Your task to perform on an android device: move a message to another label in the gmail app Image 0: 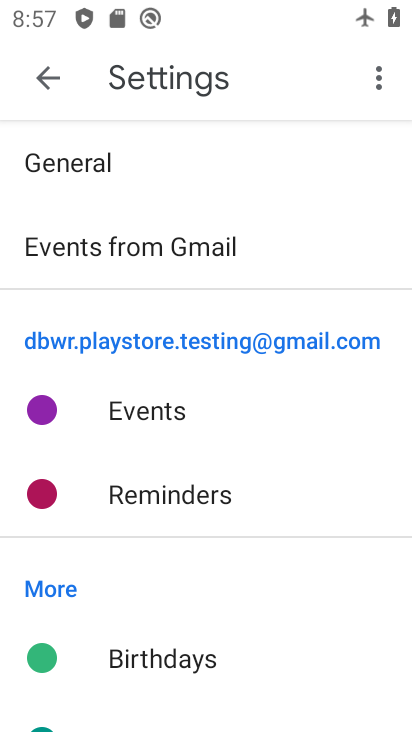
Step 0: drag from (193, 626) to (311, 133)
Your task to perform on an android device: move a message to another label in the gmail app Image 1: 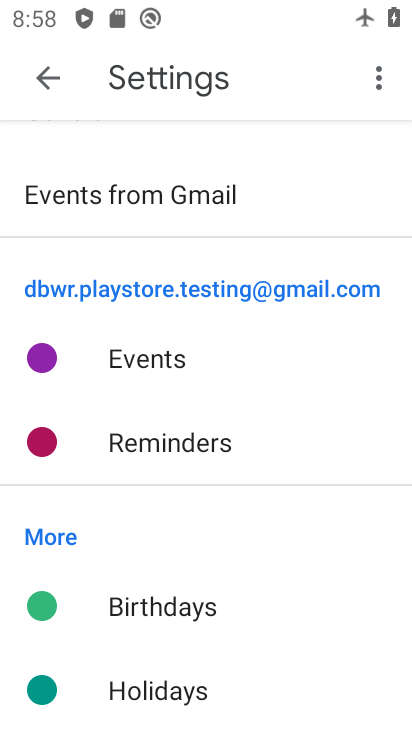
Step 1: task complete